Your task to perform on an android device: check storage Image 0: 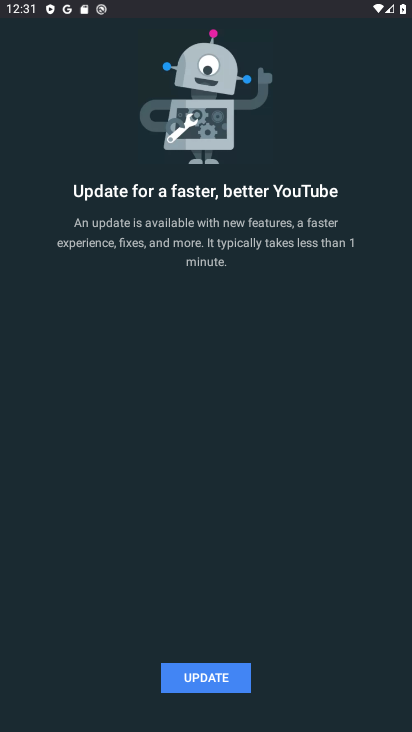
Step 0: press home button
Your task to perform on an android device: check storage Image 1: 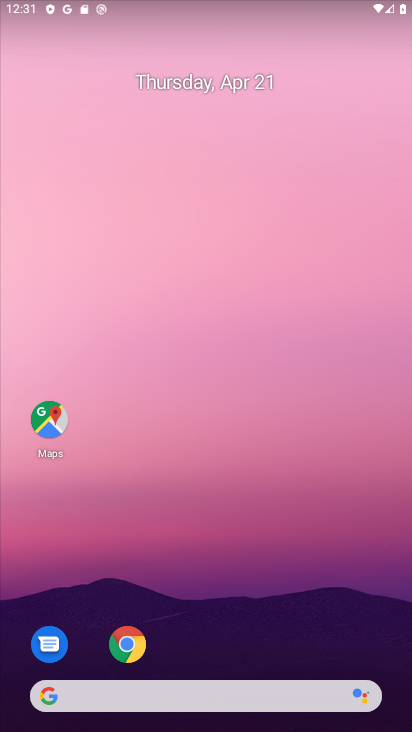
Step 1: drag from (222, 591) to (241, 18)
Your task to perform on an android device: check storage Image 2: 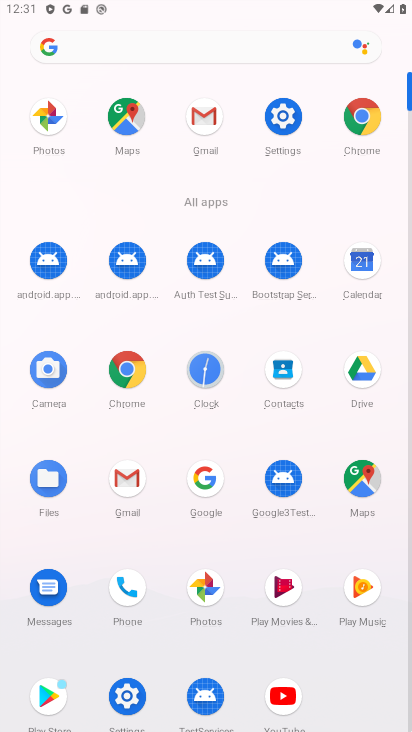
Step 2: click (296, 123)
Your task to perform on an android device: check storage Image 3: 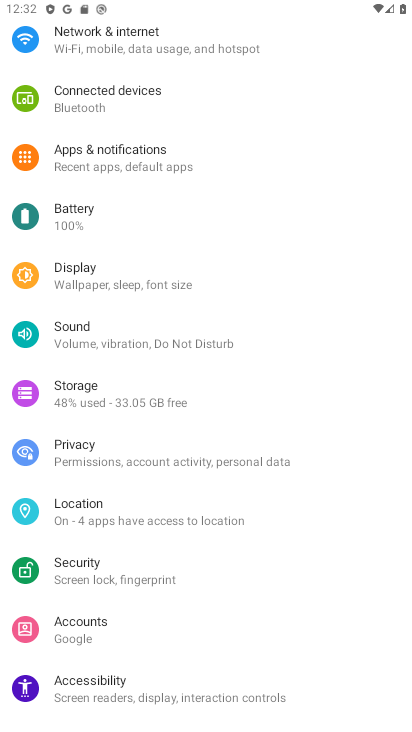
Step 3: click (200, 388)
Your task to perform on an android device: check storage Image 4: 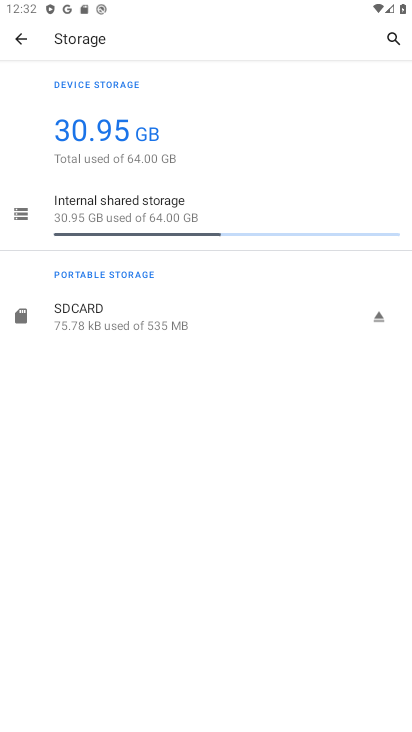
Step 4: task complete